Your task to perform on an android device: toggle sleep mode Image 0: 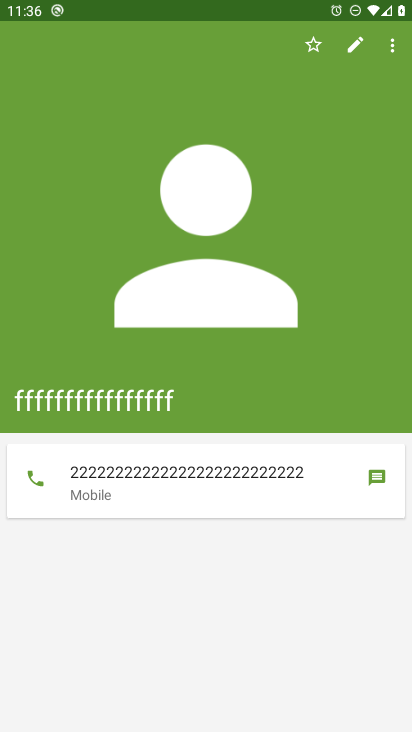
Step 0: press home button
Your task to perform on an android device: toggle sleep mode Image 1: 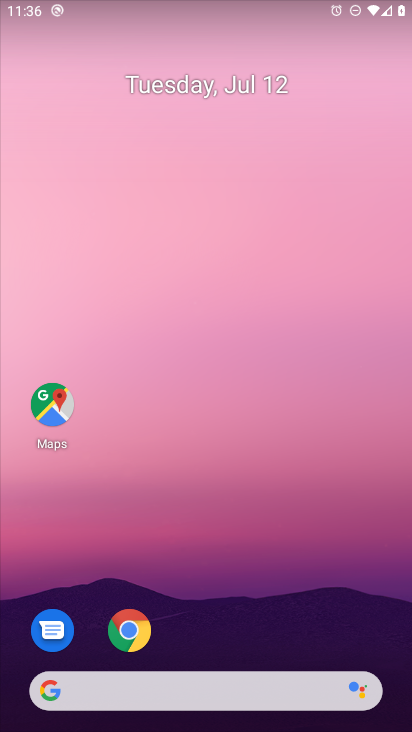
Step 1: click (379, 368)
Your task to perform on an android device: toggle sleep mode Image 2: 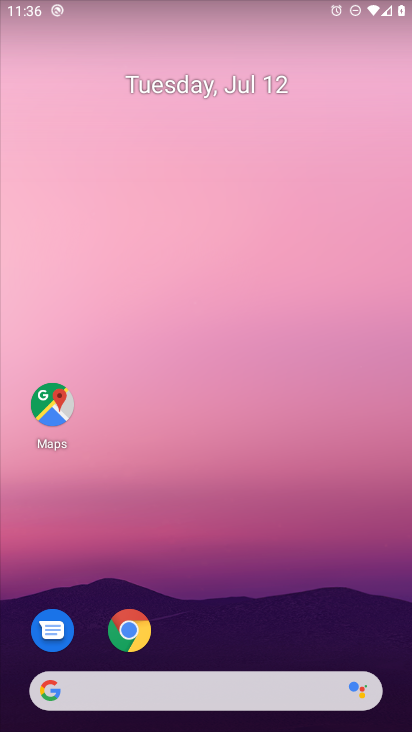
Step 2: drag from (258, 627) to (280, 44)
Your task to perform on an android device: toggle sleep mode Image 3: 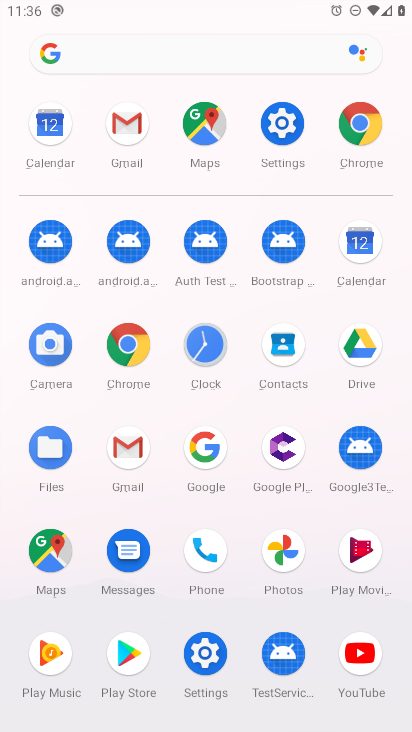
Step 3: click (277, 120)
Your task to perform on an android device: toggle sleep mode Image 4: 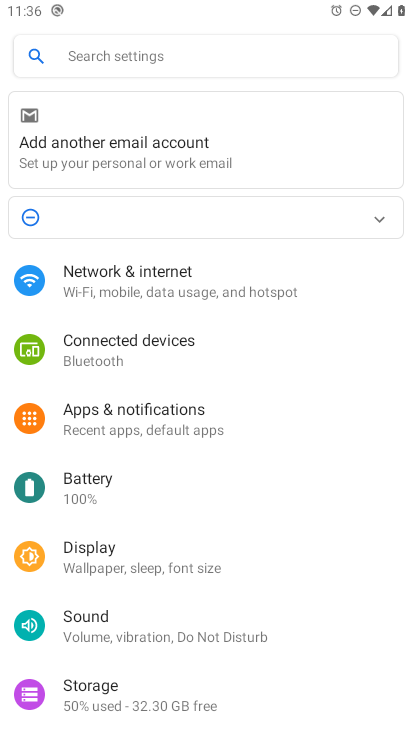
Step 4: click (153, 566)
Your task to perform on an android device: toggle sleep mode Image 5: 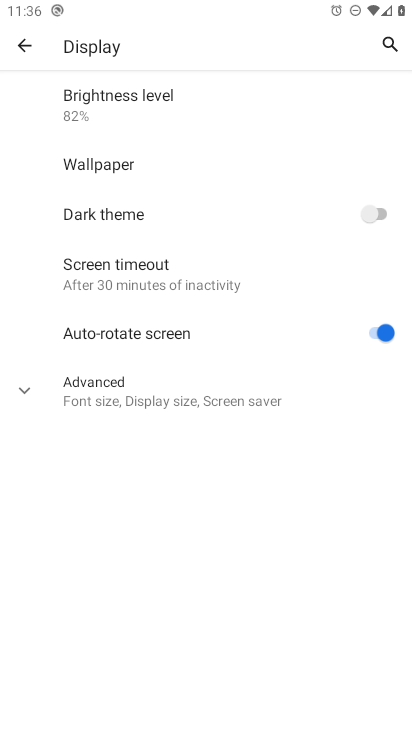
Step 5: click (26, 388)
Your task to perform on an android device: toggle sleep mode Image 6: 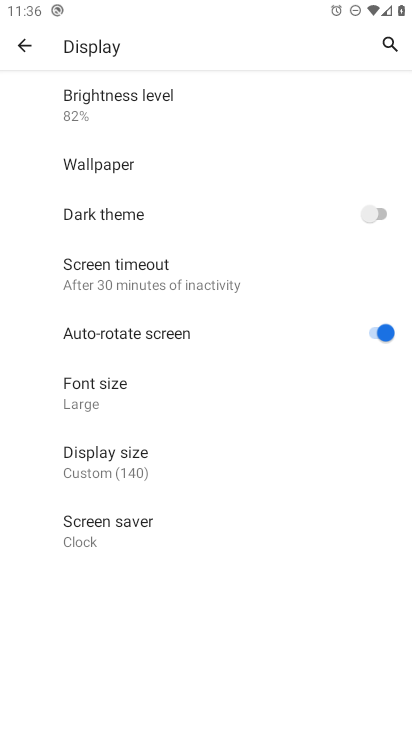
Step 6: task complete